Your task to perform on an android device: turn smart compose on in the gmail app Image 0: 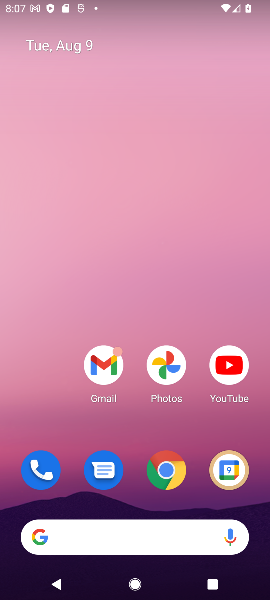
Step 0: click (102, 362)
Your task to perform on an android device: turn smart compose on in the gmail app Image 1: 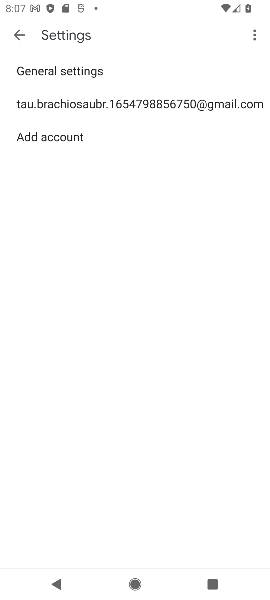
Step 1: click (109, 104)
Your task to perform on an android device: turn smart compose on in the gmail app Image 2: 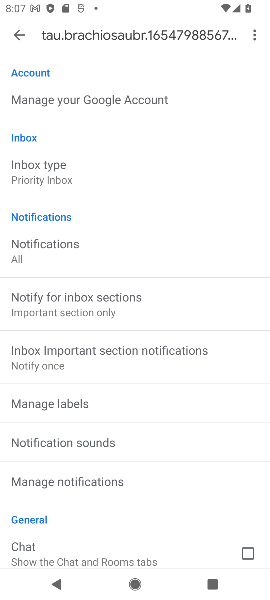
Step 2: drag from (104, 457) to (117, 167)
Your task to perform on an android device: turn smart compose on in the gmail app Image 3: 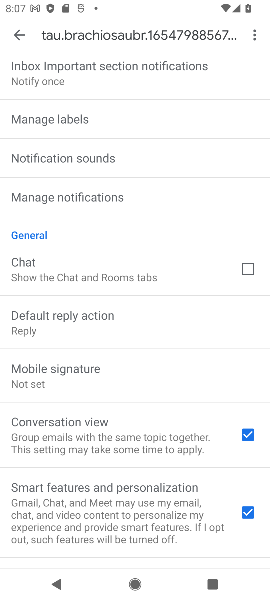
Step 3: drag from (115, 469) to (155, 125)
Your task to perform on an android device: turn smart compose on in the gmail app Image 4: 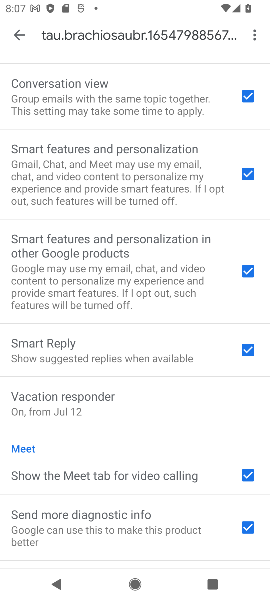
Step 4: drag from (93, 408) to (86, 476)
Your task to perform on an android device: turn smart compose on in the gmail app Image 5: 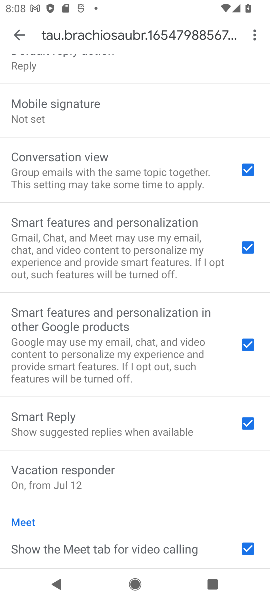
Step 5: click (241, 246)
Your task to perform on an android device: turn smart compose on in the gmail app Image 6: 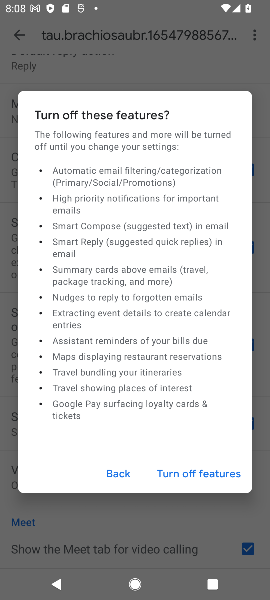
Step 6: click (193, 474)
Your task to perform on an android device: turn smart compose on in the gmail app Image 7: 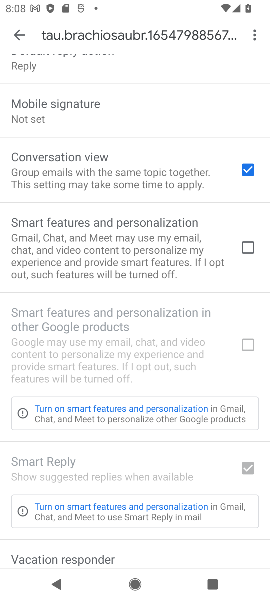
Step 7: task complete